Your task to perform on an android device: What's the weather? Image 0: 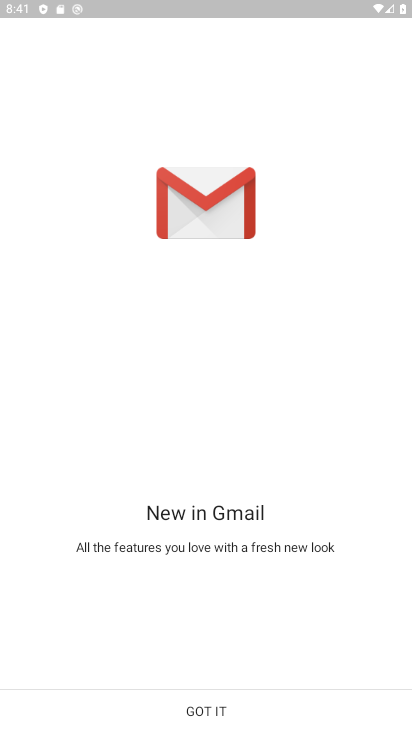
Step 0: press back button
Your task to perform on an android device: What's the weather? Image 1: 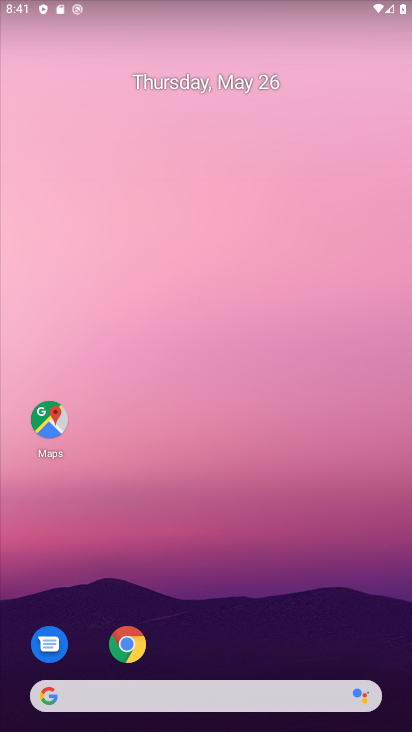
Step 1: click (225, 688)
Your task to perform on an android device: What's the weather? Image 2: 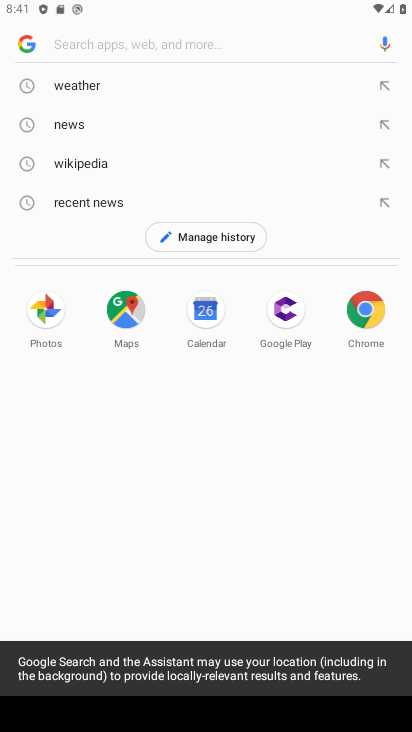
Step 2: click (61, 90)
Your task to perform on an android device: What's the weather? Image 3: 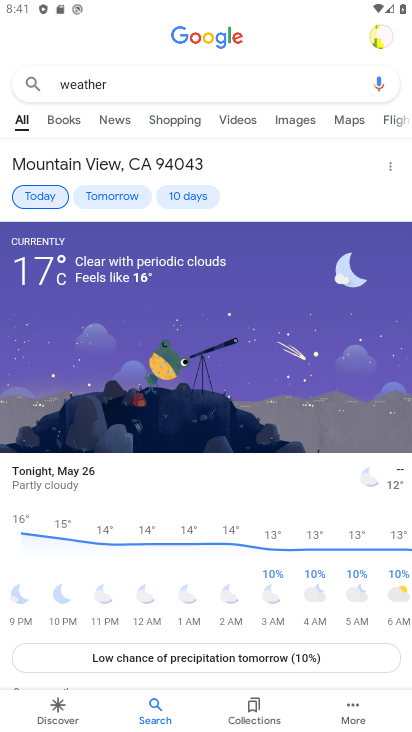
Step 3: task complete